Your task to perform on an android device: turn on airplane mode Image 0: 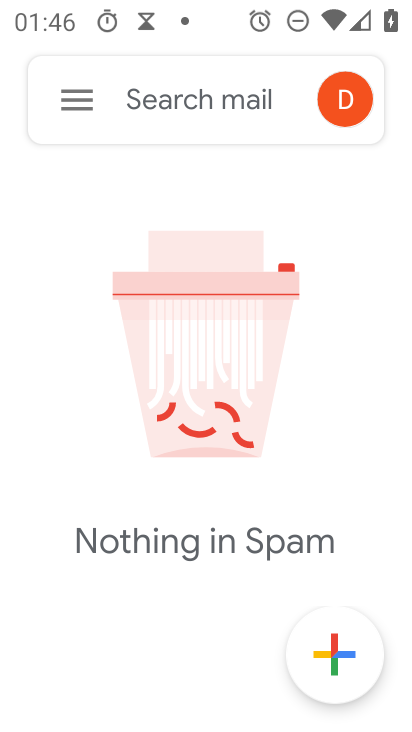
Step 0: press home button
Your task to perform on an android device: turn on airplane mode Image 1: 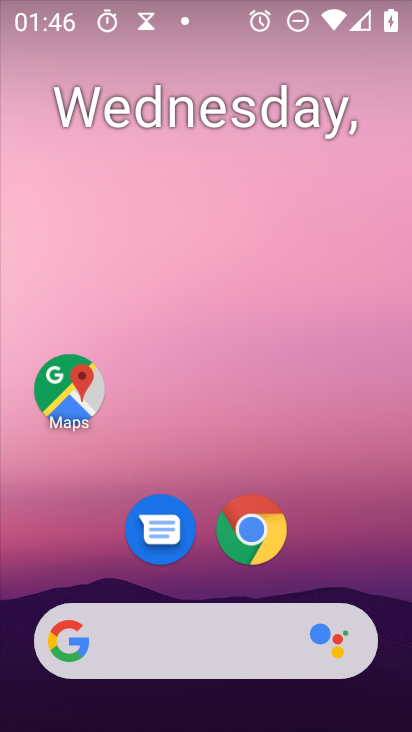
Step 1: drag from (235, 649) to (267, 7)
Your task to perform on an android device: turn on airplane mode Image 2: 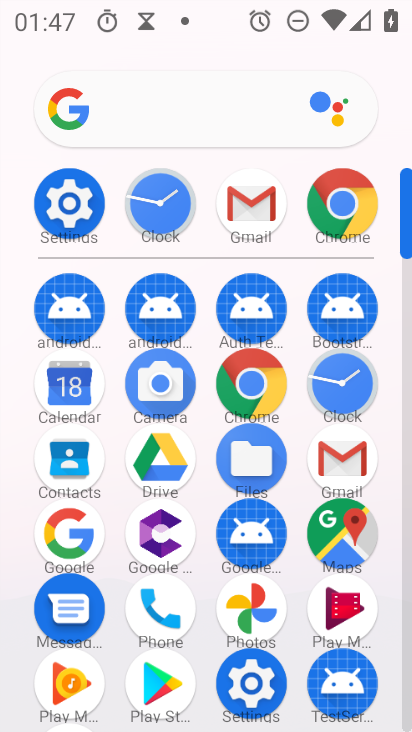
Step 2: click (69, 199)
Your task to perform on an android device: turn on airplane mode Image 3: 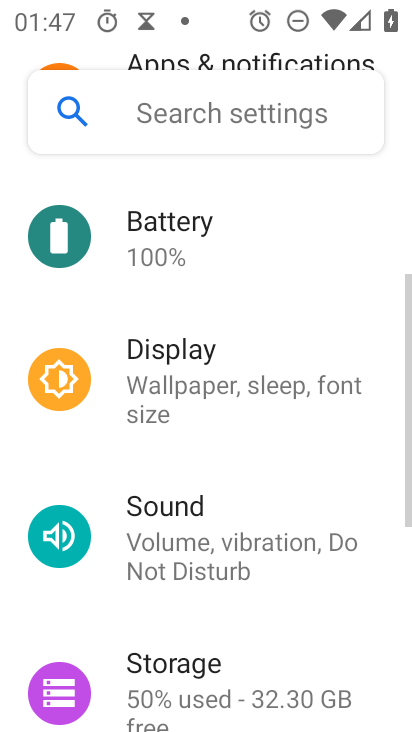
Step 3: drag from (195, 206) to (276, 731)
Your task to perform on an android device: turn on airplane mode Image 4: 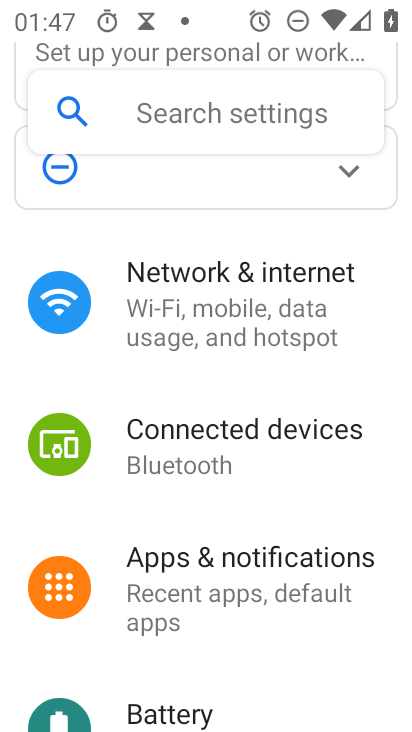
Step 4: click (260, 288)
Your task to perform on an android device: turn on airplane mode Image 5: 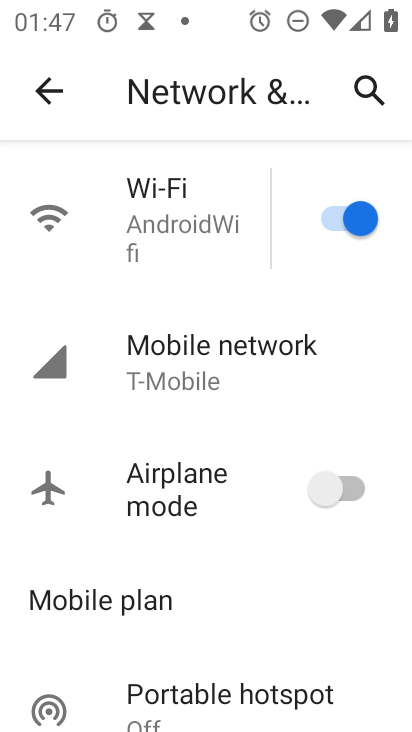
Step 5: click (362, 487)
Your task to perform on an android device: turn on airplane mode Image 6: 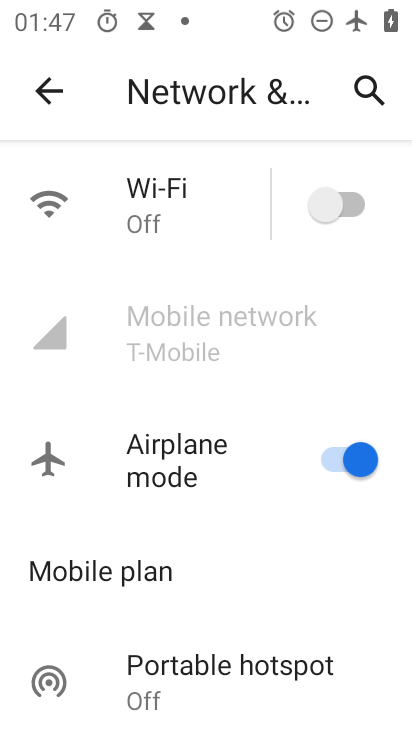
Step 6: task complete